Your task to perform on an android device: Open accessibility settings Image 0: 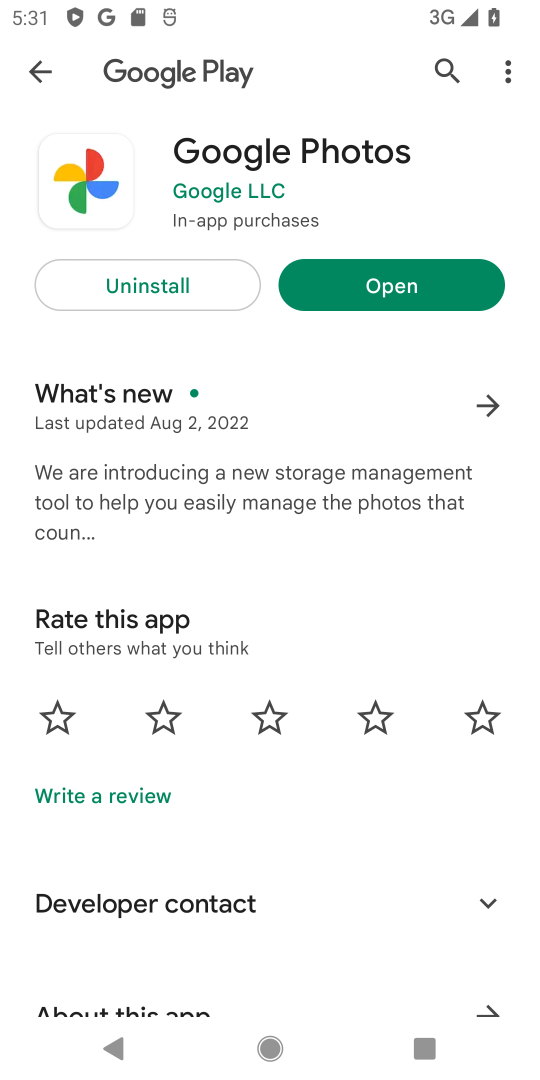
Step 0: press home button
Your task to perform on an android device: Open accessibility settings Image 1: 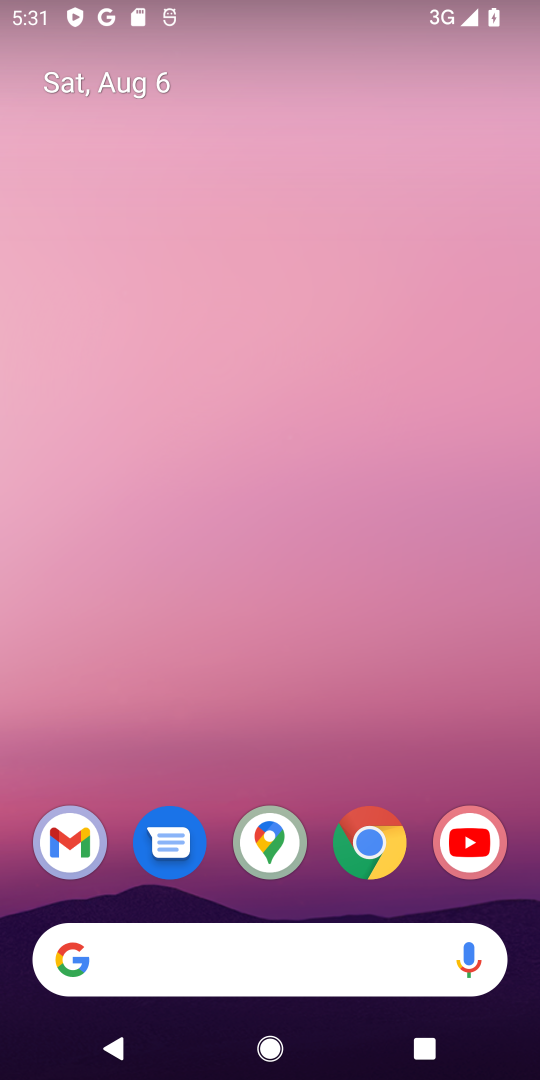
Step 1: drag from (425, 671) to (376, 142)
Your task to perform on an android device: Open accessibility settings Image 2: 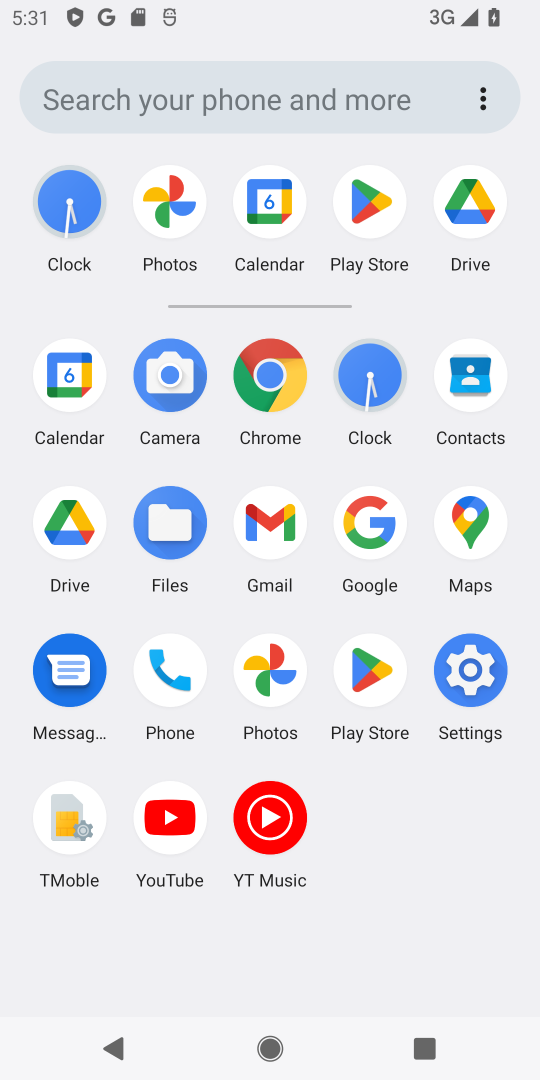
Step 2: click (472, 671)
Your task to perform on an android device: Open accessibility settings Image 3: 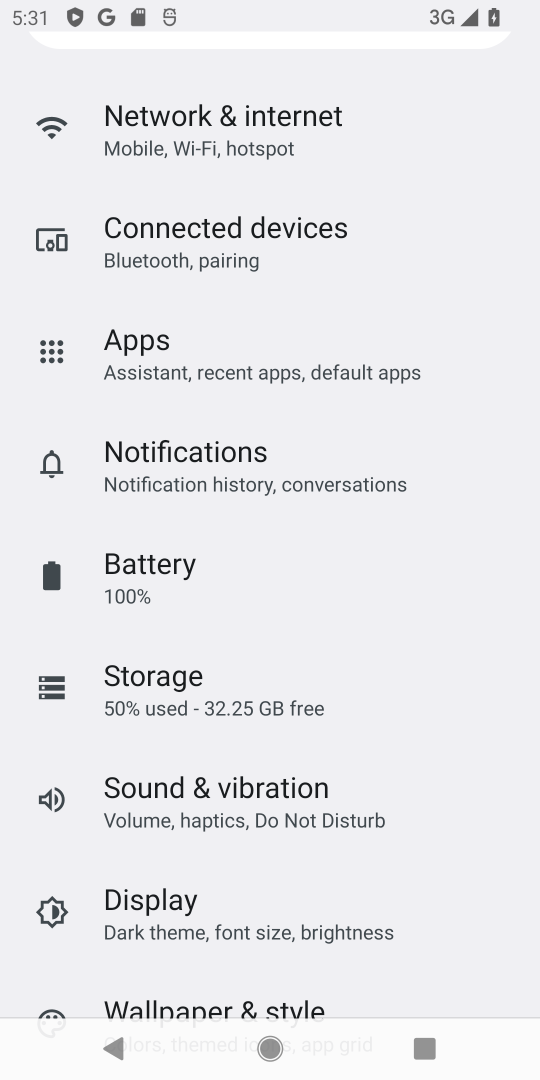
Step 3: drag from (464, 969) to (428, 360)
Your task to perform on an android device: Open accessibility settings Image 4: 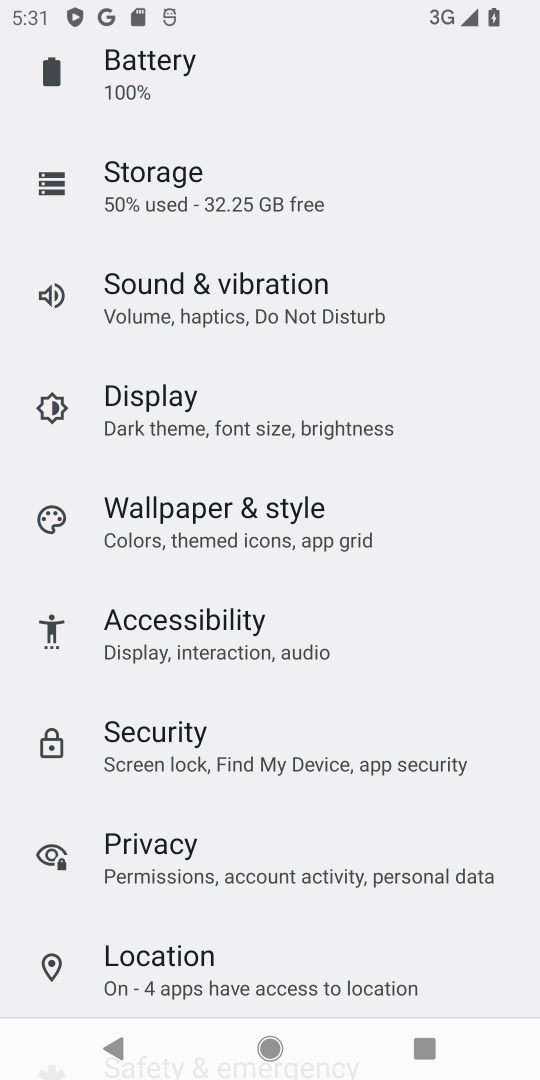
Step 4: click (185, 626)
Your task to perform on an android device: Open accessibility settings Image 5: 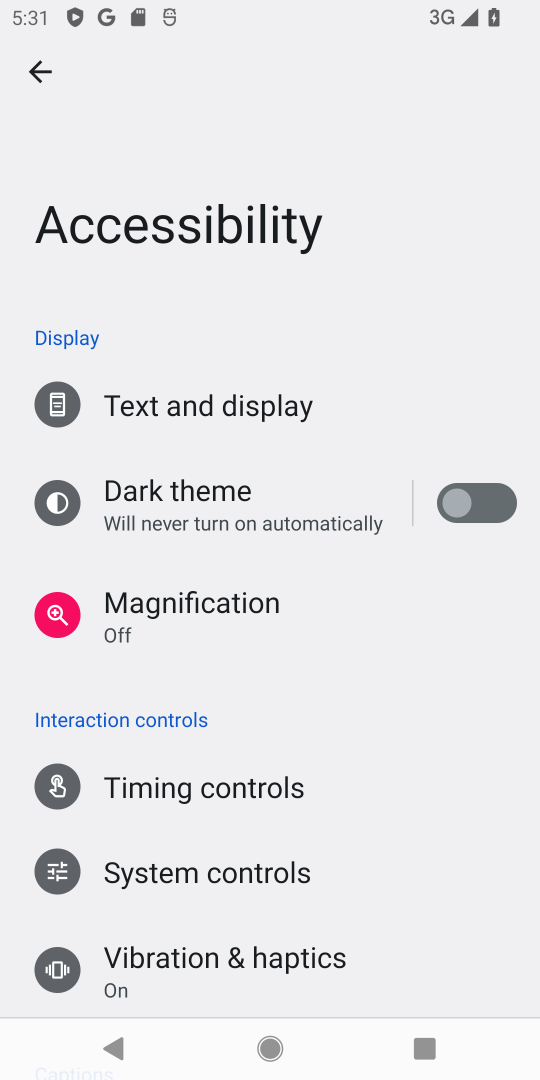
Step 5: task complete